Your task to perform on an android device: Open settings Image 0: 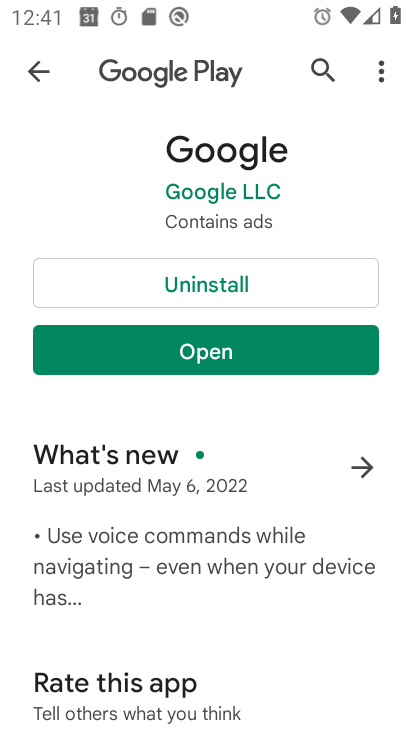
Step 0: click (236, 353)
Your task to perform on an android device: Open settings Image 1: 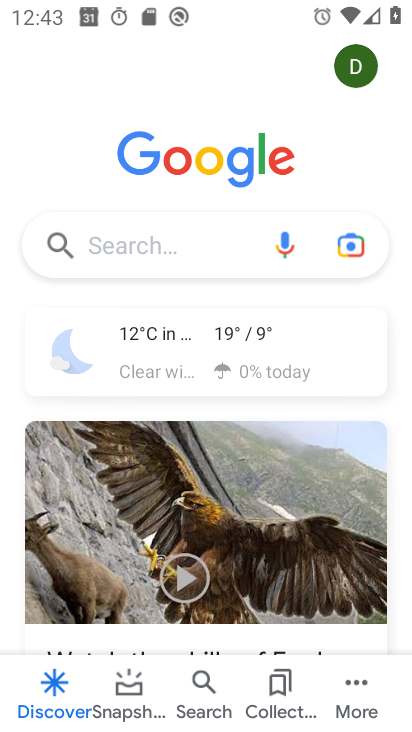
Step 1: press back button
Your task to perform on an android device: Open settings Image 2: 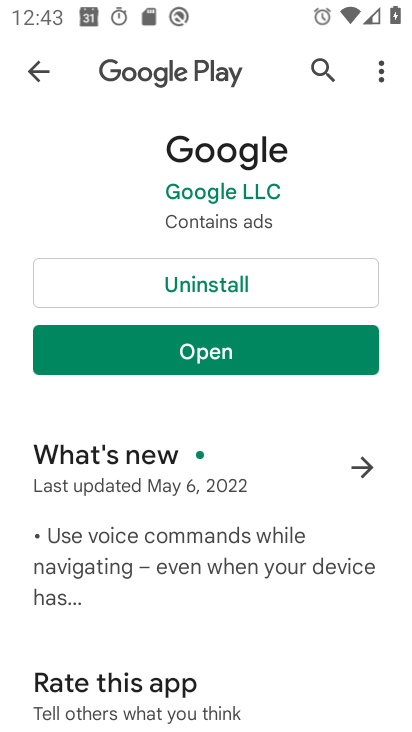
Step 2: press back button
Your task to perform on an android device: Open settings Image 3: 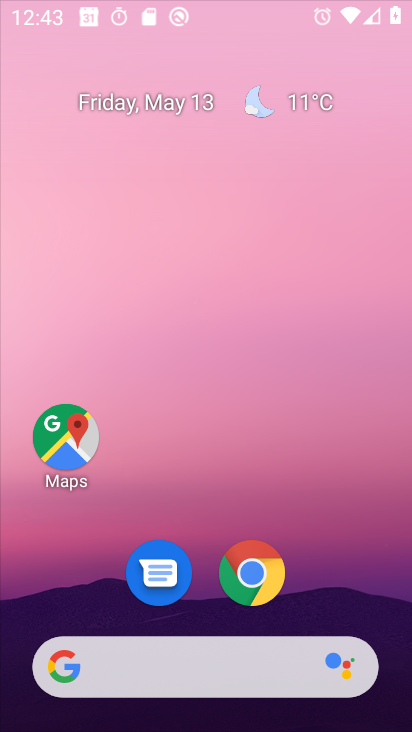
Step 3: press home button
Your task to perform on an android device: Open settings Image 4: 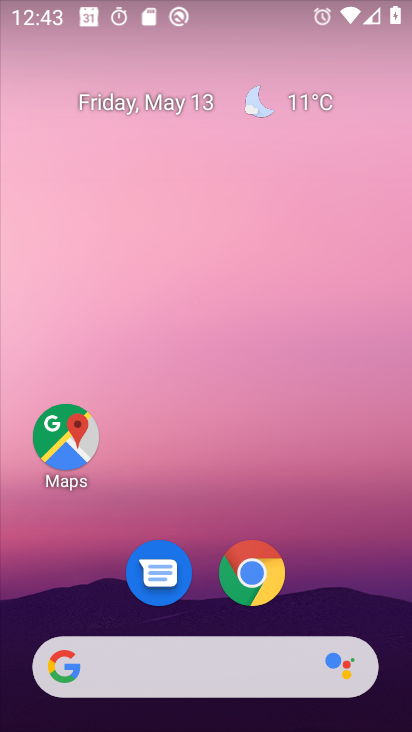
Step 4: drag from (391, 691) to (350, 327)
Your task to perform on an android device: Open settings Image 5: 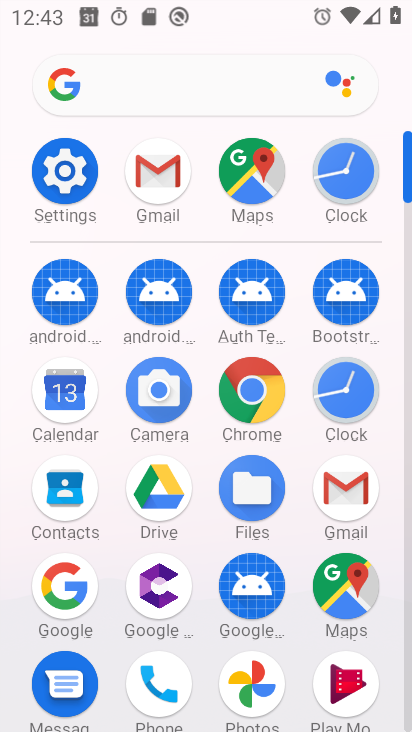
Step 5: click (67, 181)
Your task to perform on an android device: Open settings Image 6: 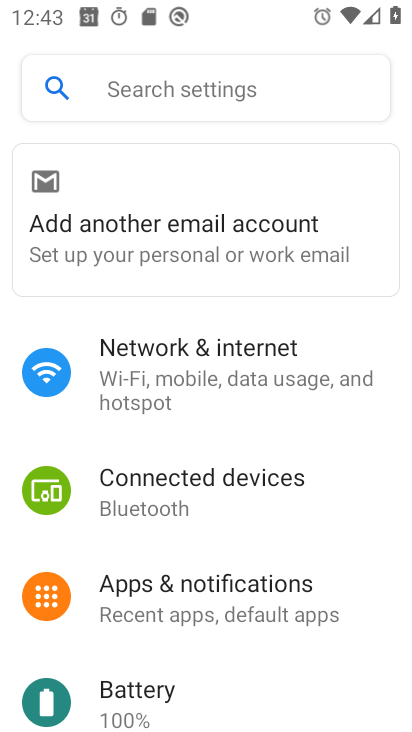
Step 6: task complete